Your task to perform on an android device: check battery use Image 0: 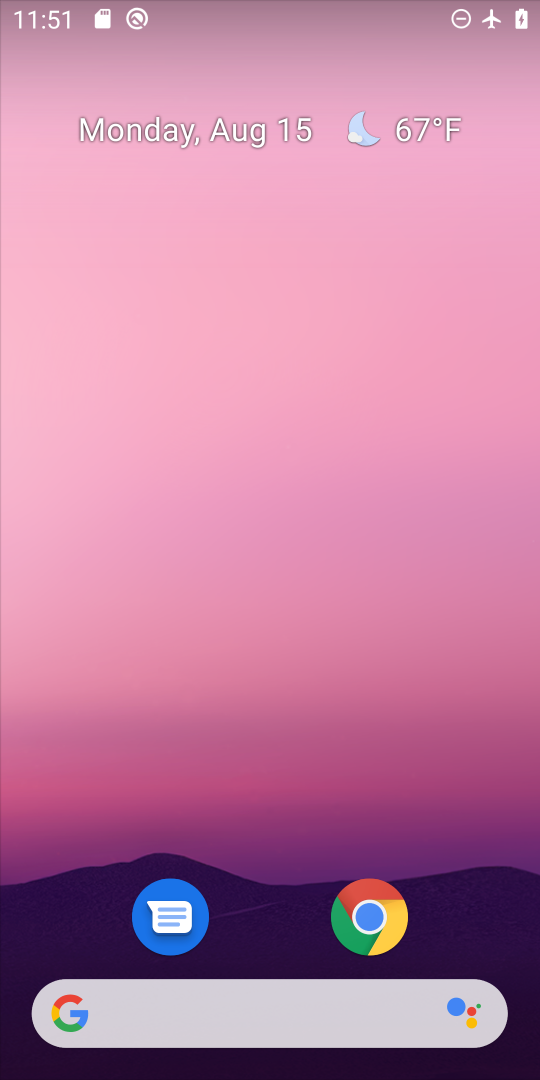
Step 0: drag from (284, 819) to (284, 878)
Your task to perform on an android device: check battery use Image 1: 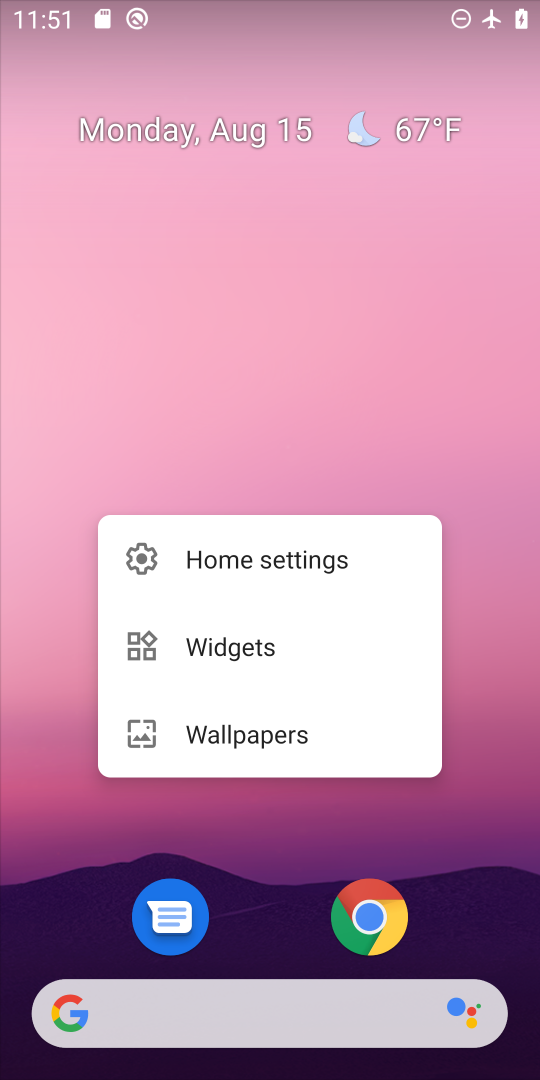
Step 1: click (279, 872)
Your task to perform on an android device: check battery use Image 2: 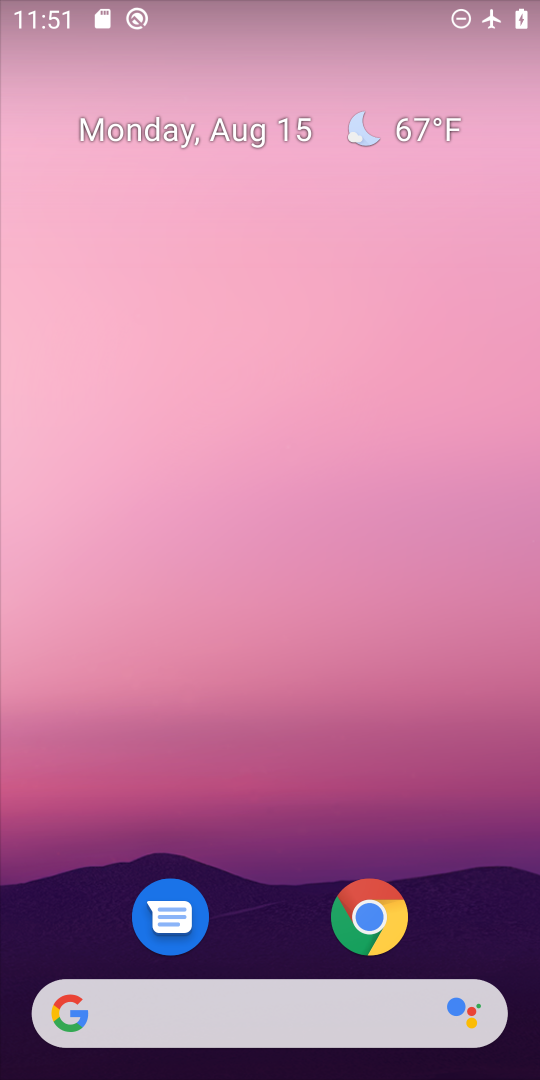
Step 2: drag from (279, 869) to (340, 0)
Your task to perform on an android device: check battery use Image 3: 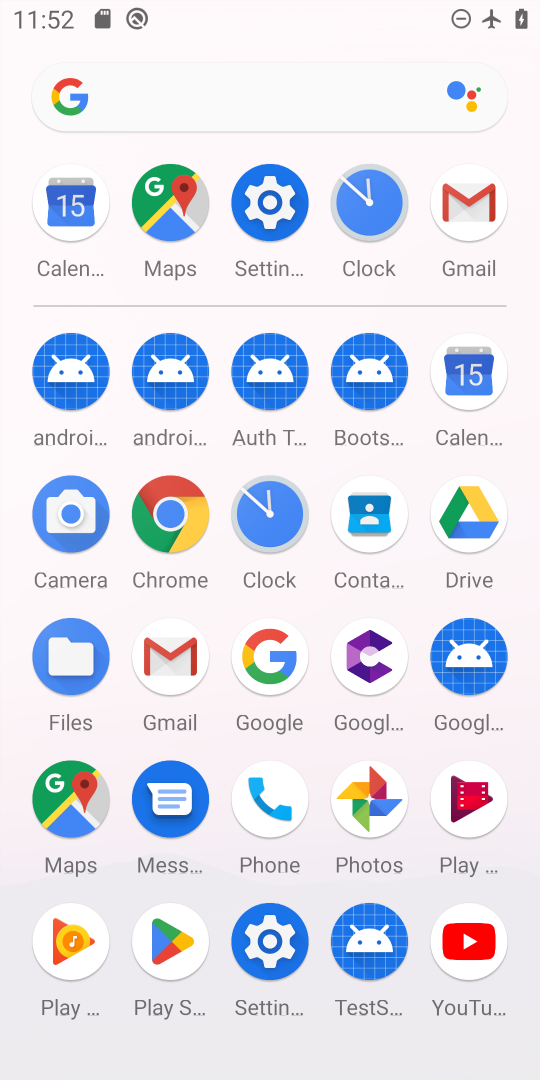
Step 3: click (270, 198)
Your task to perform on an android device: check battery use Image 4: 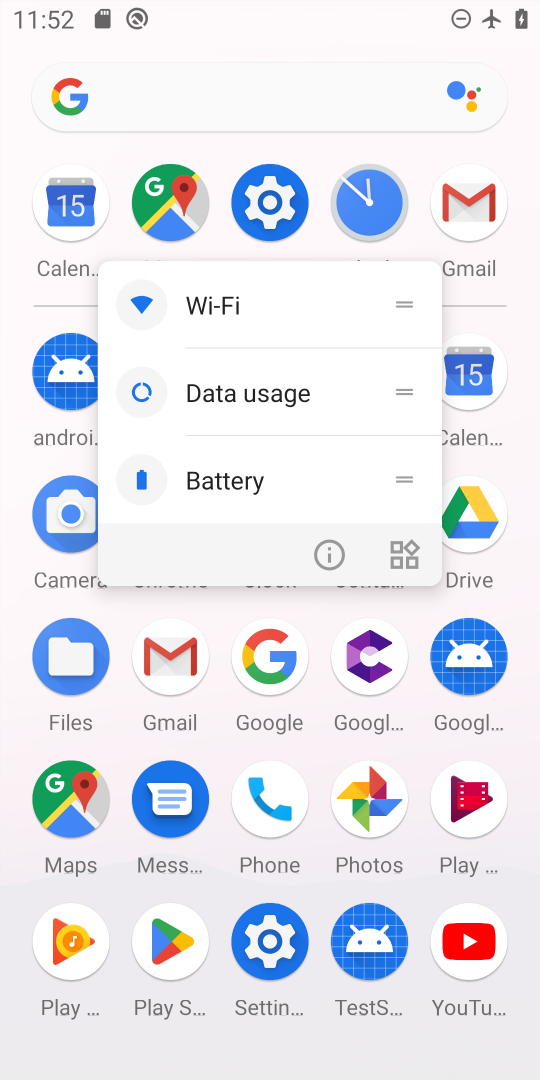
Step 4: click (270, 196)
Your task to perform on an android device: check battery use Image 5: 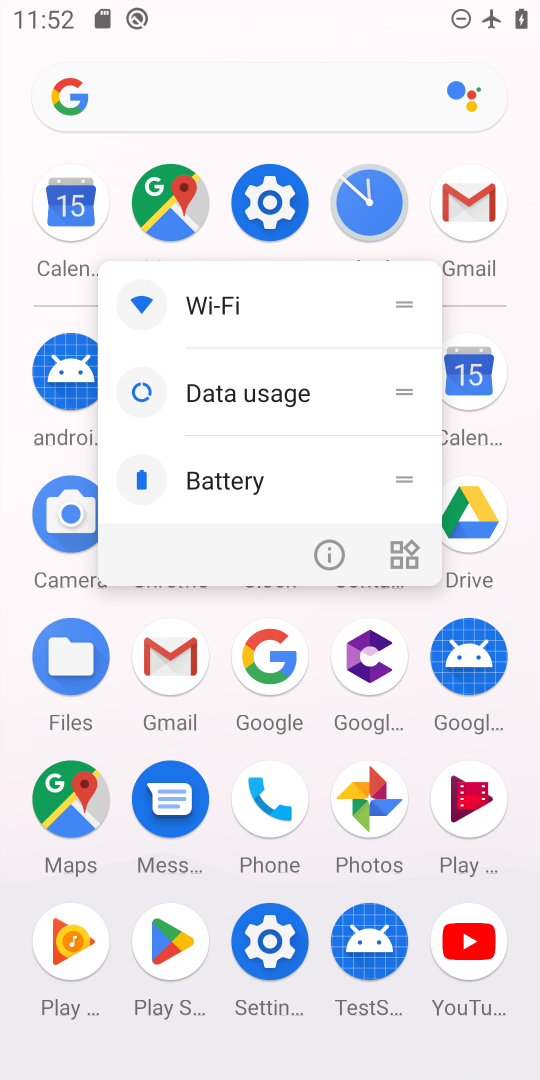
Step 5: click (270, 196)
Your task to perform on an android device: check battery use Image 6: 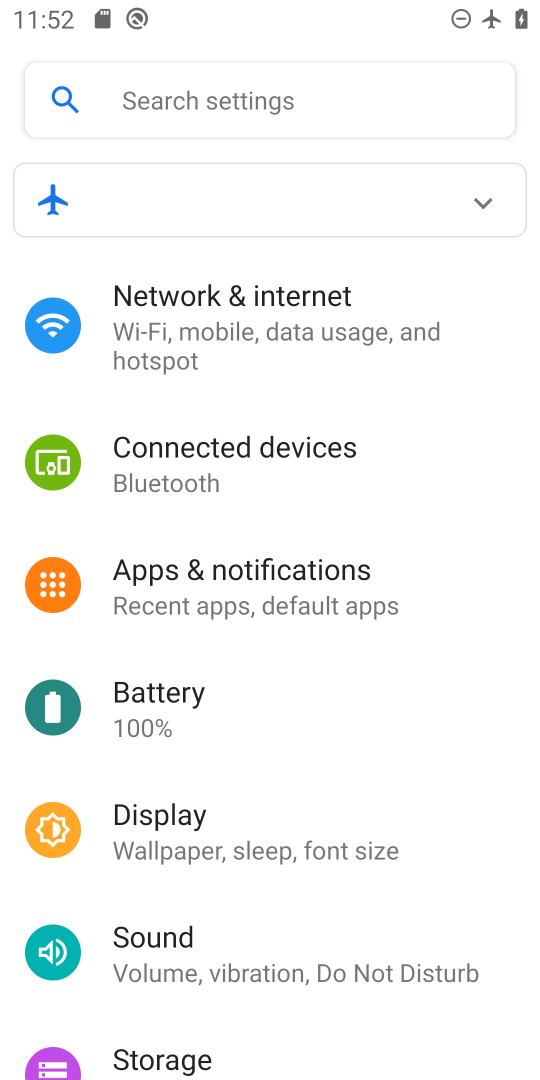
Step 6: click (246, 701)
Your task to perform on an android device: check battery use Image 7: 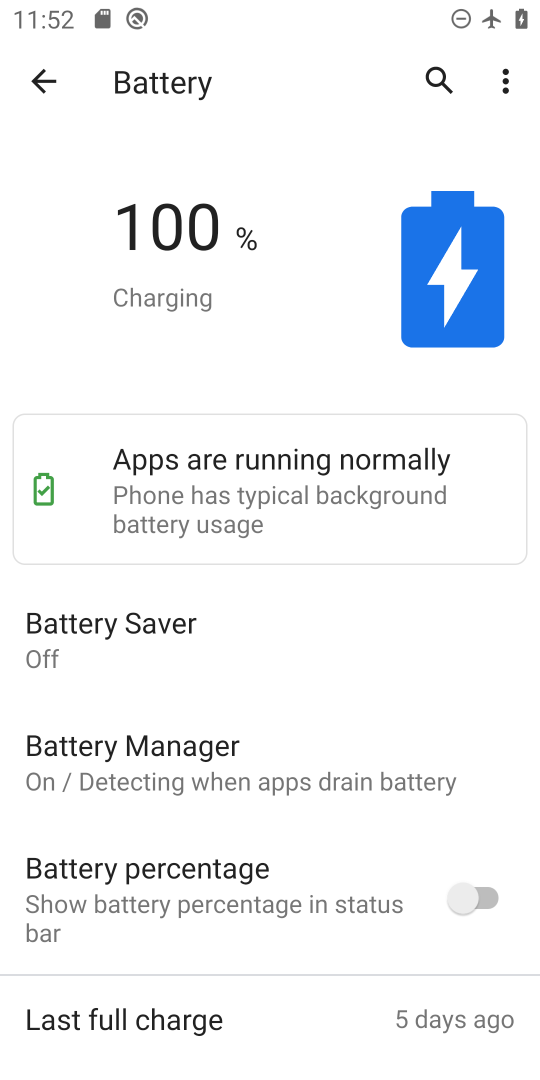
Step 7: click (504, 82)
Your task to perform on an android device: check battery use Image 8: 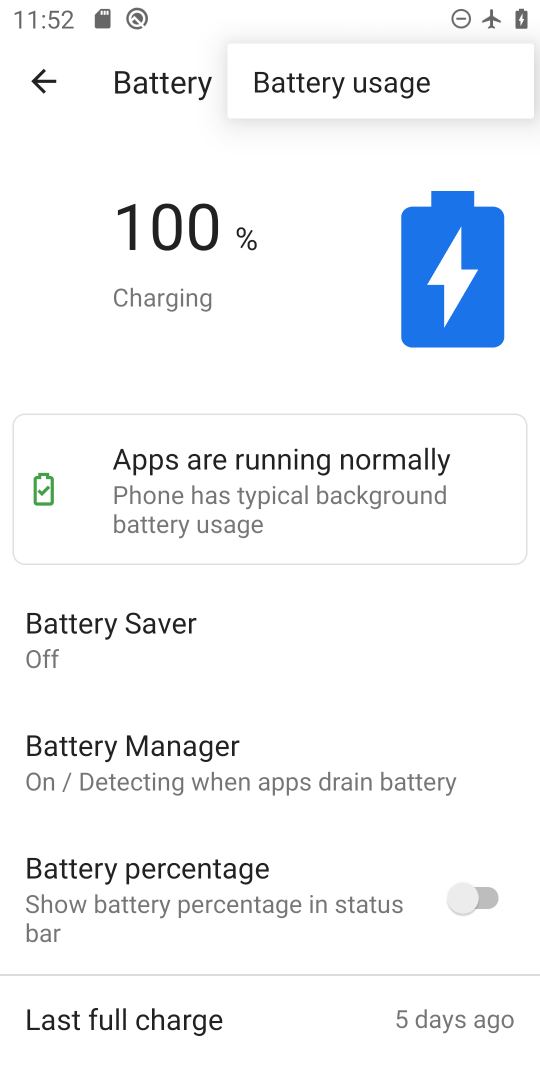
Step 8: click (413, 92)
Your task to perform on an android device: check battery use Image 9: 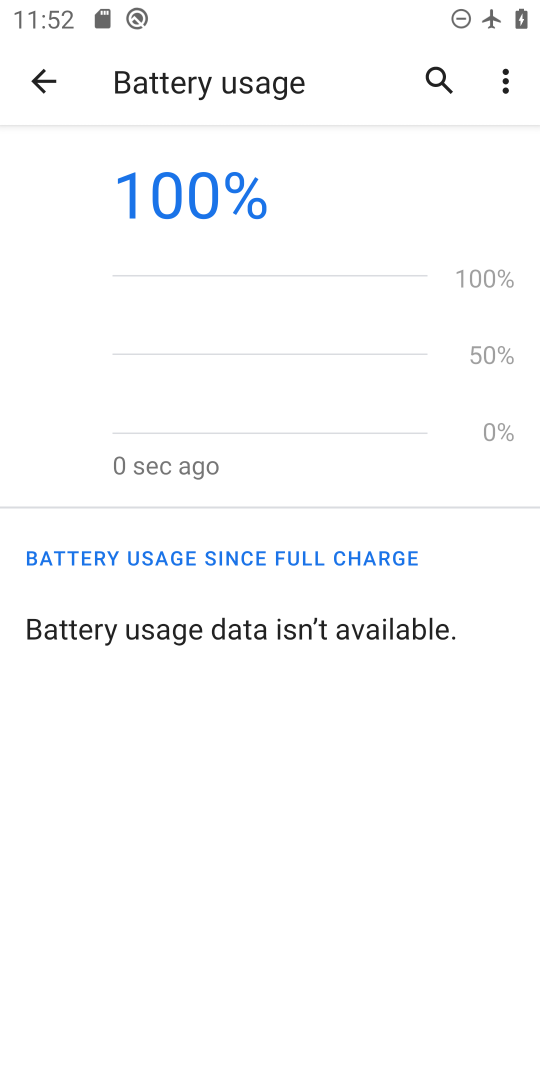
Step 9: task complete